Your task to perform on an android device: open wifi settings Image 0: 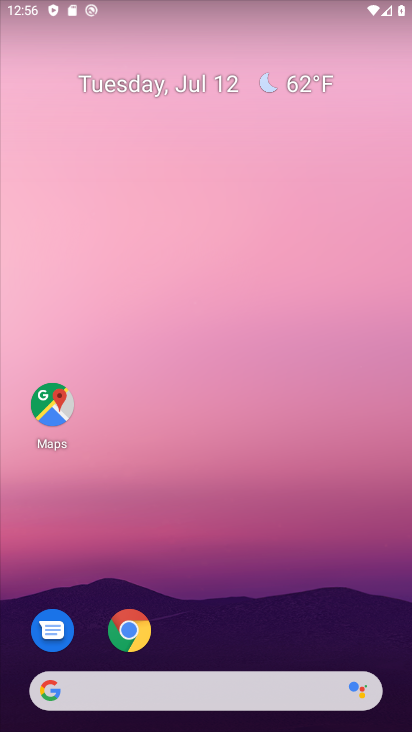
Step 0: drag from (219, 627) to (259, 98)
Your task to perform on an android device: open wifi settings Image 1: 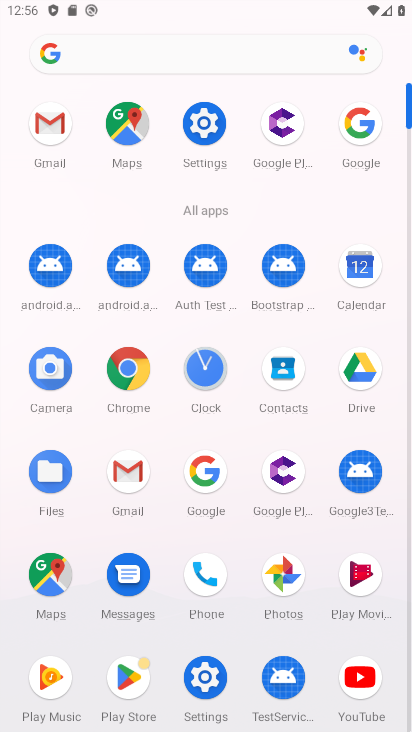
Step 1: click (200, 126)
Your task to perform on an android device: open wifi settings Image 2: 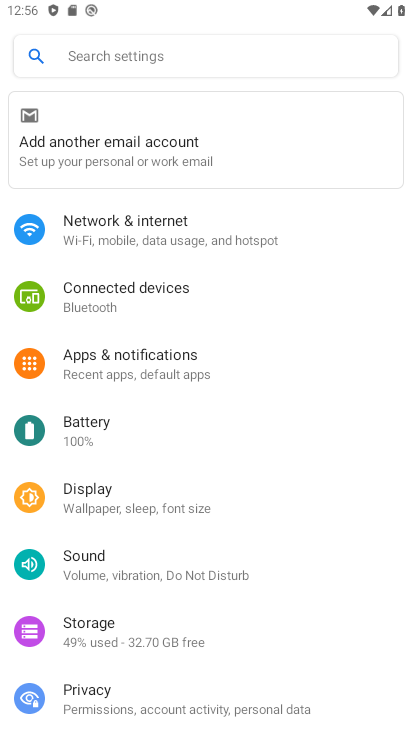
Step 2: click (162, 219)
Your task to perform on an android device: open wifi settings Image 3: 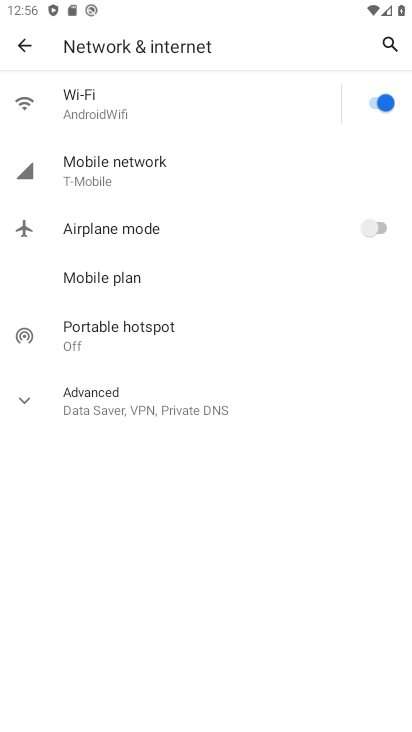
Step 3: click (124, 96)
Your task to perform on an android device: open wifi settings Image 4: 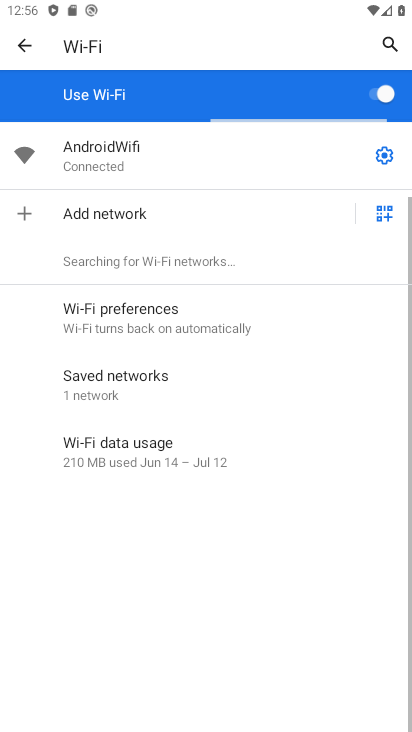
Step 4: click (167, 147)
Your task to perform on an android device: open wifi settings Image 5: 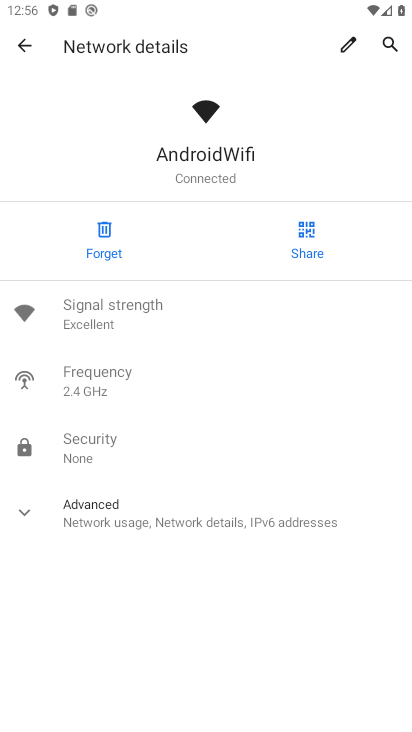
Step 5: task complete